Your task to perform on an android device: Go to privacy settings Image 0: 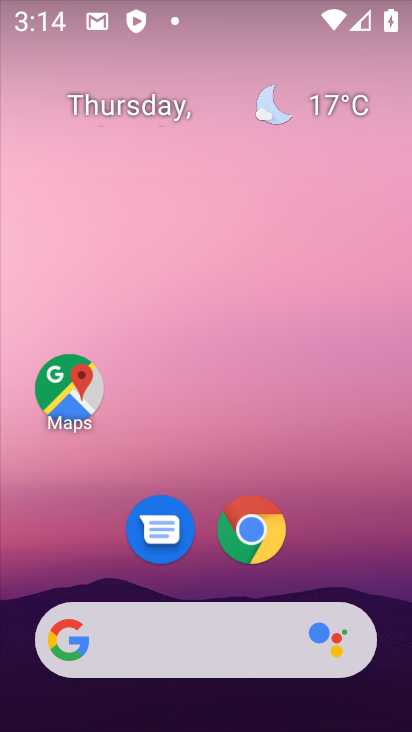
Step 0: click (241, 526)
Your task to perform on an android device: Go to privacy settings Image 1: 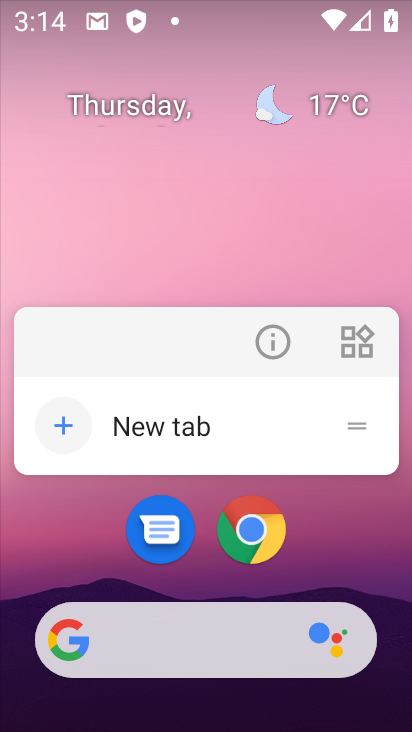
Step 1: drag from (181, 610) to (181, 325)
Your task to perform on an android device: Go to privacy settings Image 2: 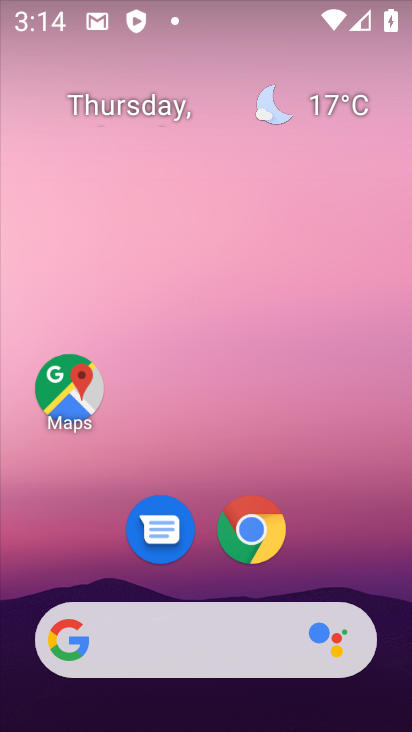
Step 2: drag from (223, 604) to (260, 217)
Your task to perform on an android device: Go to privacy settings Image 3: 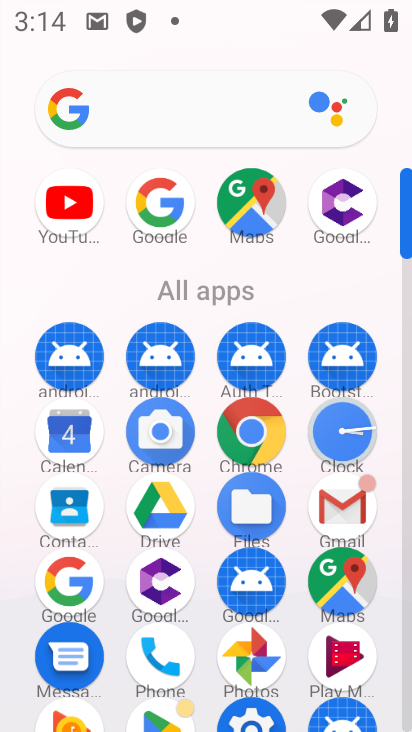
Step 3: click (245, 713)
Your task to perform on an android device: Go to privacy settings Image 4: 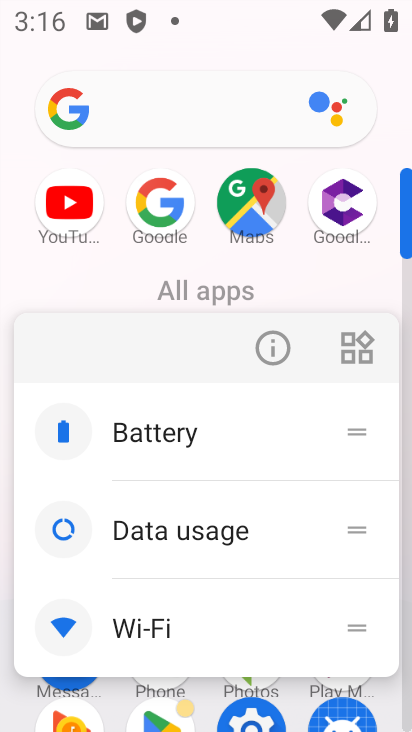
Step 4: click (146, 136)
Your task to perform on an android device: Go to privacy settings Image 5: 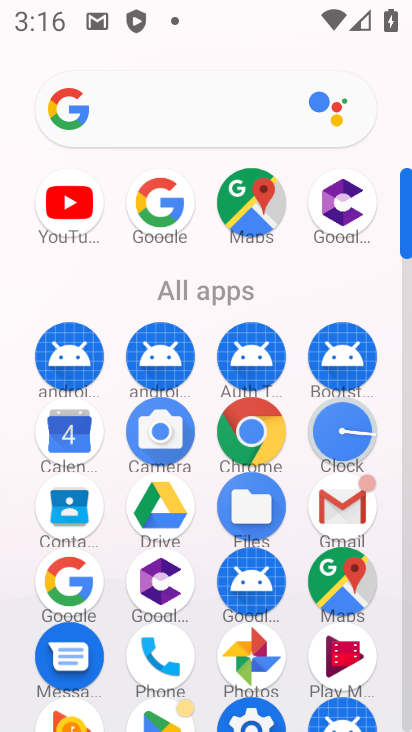
Step 5: click (247, 728)
Your task to perform on an android device: Go to privacy settings Image 6: 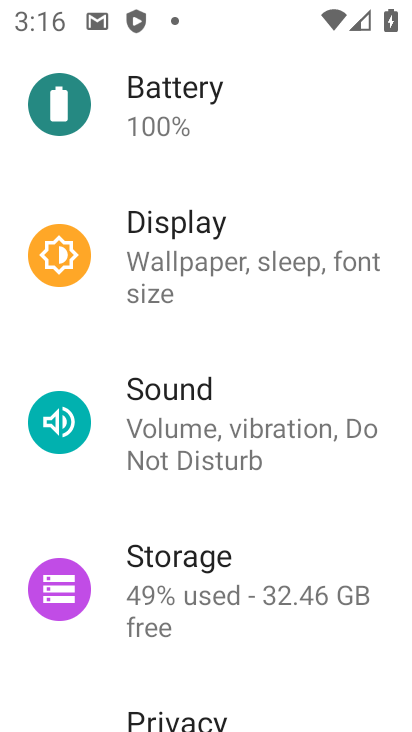
Step 6: drag from (216, 667) to (275, 170)
Your task to perform on an android device: Go to privacy settings Image 7: 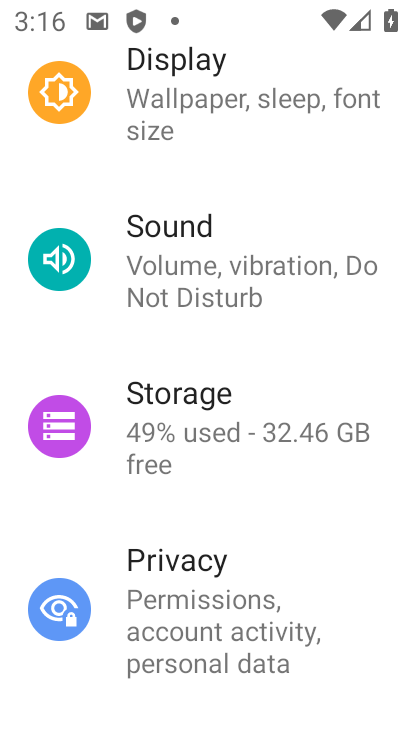
Step 7: click (195, 592)
Your task to perform on an android device: Go to privacy settings Image 8: 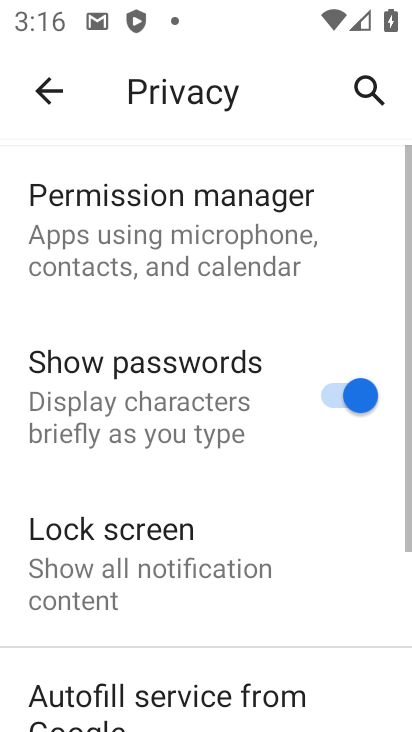
Step 8: task complete